Your task to perform on an android device: uninstall "LinkedIn" Image 0: 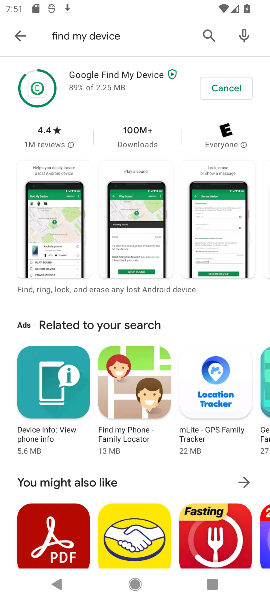
Step 0: press home button
Your task to perform on an android device: uninstall "LinkedIn" Image 1: 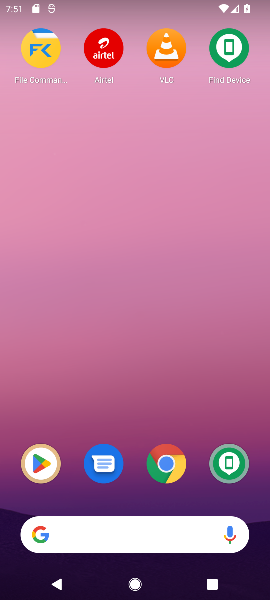
Step 1: click (39, 463)
Your task to perform on an android device: uninstall "LinkedIn" Image 2: 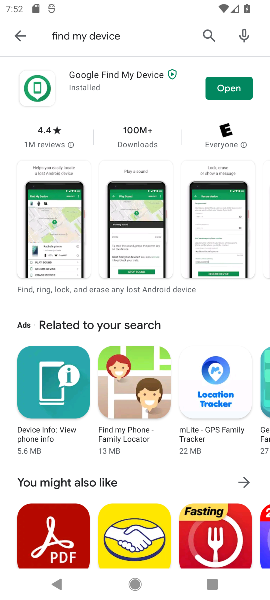
Step 2: click (212, 38)
Your task to perform on an android device: uninstall "LinkedIn" Image 3: 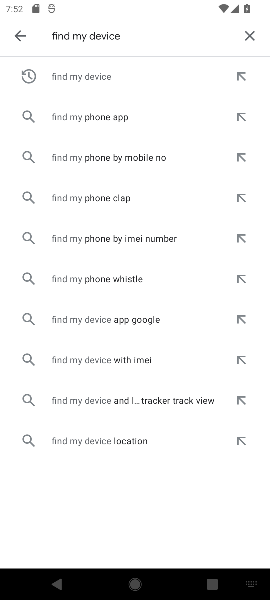
Step 3: click (254, 36)
Your task to perform on an android device: uninstall "LinkedIn" Image 4: 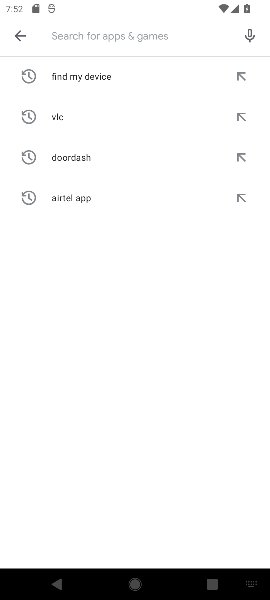
Step 4: type "linkedin"
Your task to perform on an android device: uninstall "LinkedIn" Image 5: 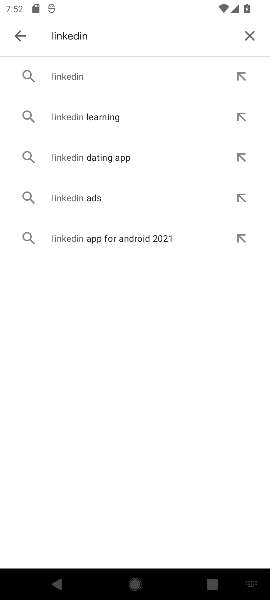
Step 5: click (159, 89)
Your task to perform on an android device: uninstall "LinkedIn" Image 6: 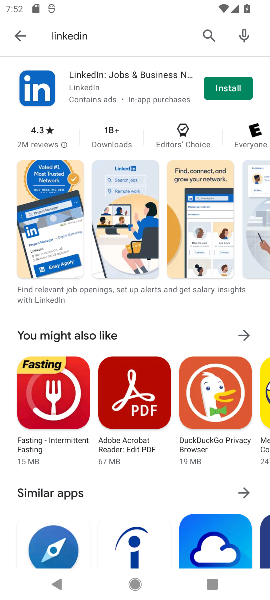
Step 6: click (228, 89)
Your task to perform on an android device: uninstall "LinkedIn" Image 7: 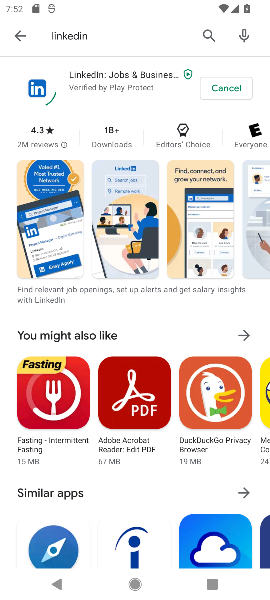
Step 7: task complete